Your task to perform on an android device: install app "WhatsApp Messenger" Image 0: 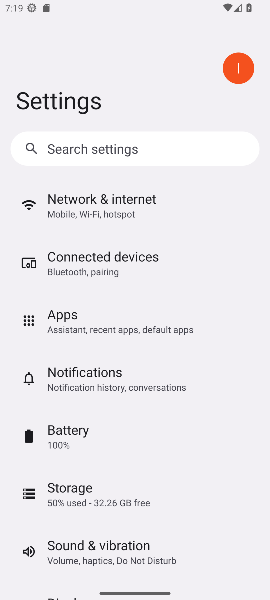
Step 0: press back button
Your task to perform on an android device: install app "WhatsApp Messenger" Image 1: 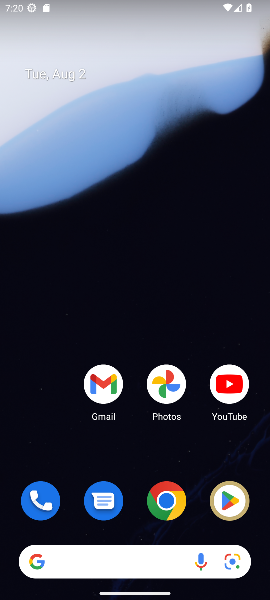
Step 1: drag from (230, 501) to (111, 193)
Your task to perform on an android device: install app "WhatsApp Messenger" Image 2: 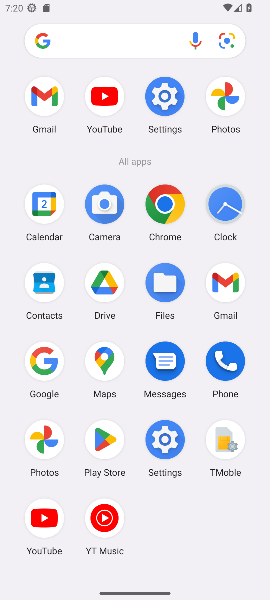
Step 2: drag from (111, 440) to (124, 221)
Your task to perform on an android device: install app "WhatsApp Messenger" Image 3: 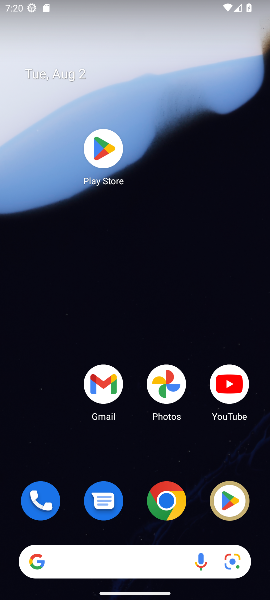
Step 3: click (100, 143)
Your task to perform on an android device: install app "WhatsApp Messenger" Image 4: 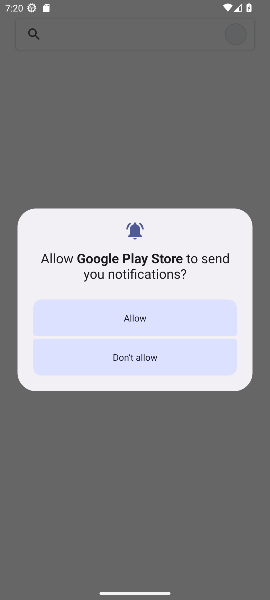
Step 4: click (184, 312)
Your task to perform on an android device: install app "WhatsApp Messenger" Image 5: 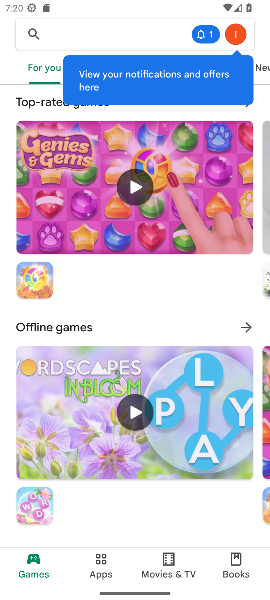
Step 5: click (108, 35)
Your task to perform on an android device: install app "WhatsApp Messenger" Image 6: 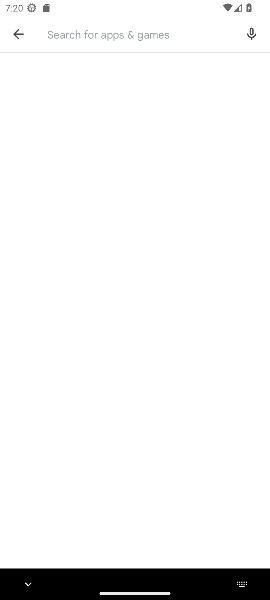
Step 6: type "whatsapp"
Your task to perform on an android device: install app "WhatsApp Messenger" Image 7: 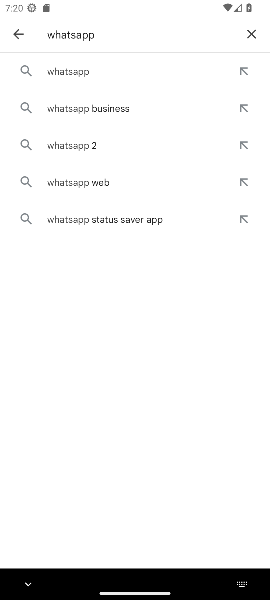
Step 7: click (92, 78)
Your task to perform on an android device: install app "WhatsApp Messenger" Image 8: 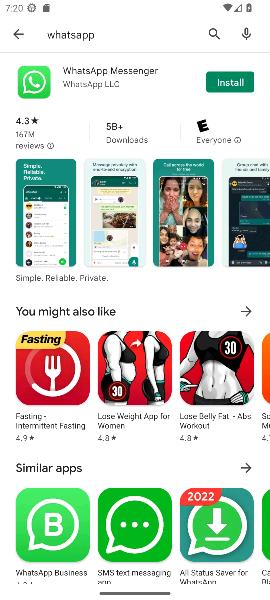
Step 8: click (229, 80)
Your task to perform on an android device: install app "WhatsApp Messenger" Image 9: 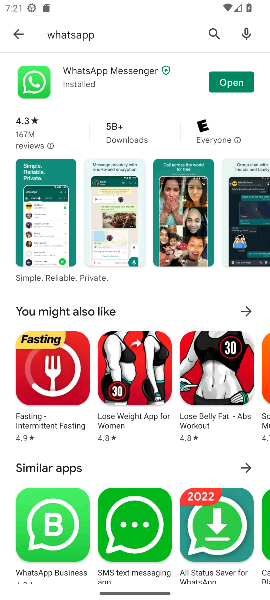
Step 9: task complete